Your task to perform on an android device: Add asus zenbook to the cart on newegg, then select checkout. Image 0: 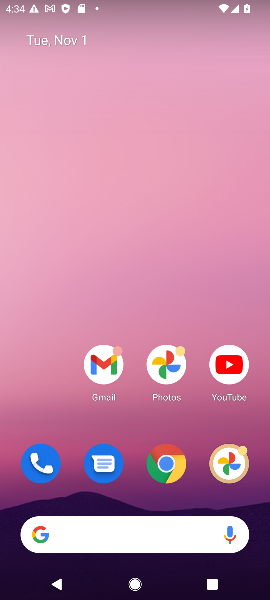
Step 0: click (165, 461)
Your task to perform on an android device: Add asus zenbook to the cart on newegg, then select checkout. Image 1: 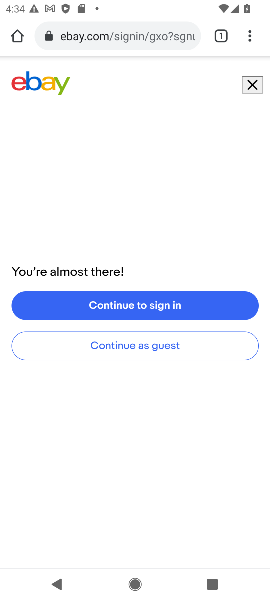
Step 1: click (110, 36)
Your task to perform on an android device: Add asus zenbook to the cart on newegg, then select checkout. Image 2: 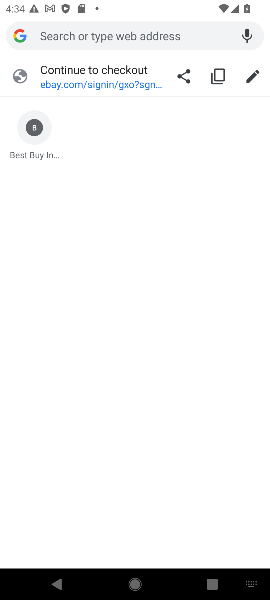
Step 2: type "newegg"
Your task to perform on an android device: Add asus zenbook to the cart on newegg, then select checkout. Image 3: 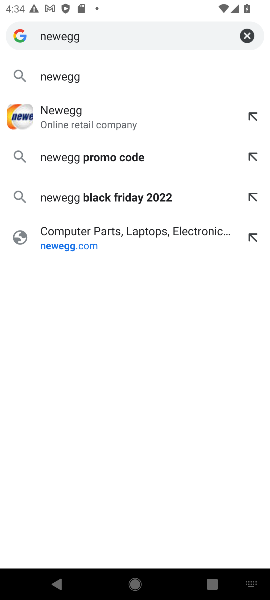
Step 3: click (107, 118)
Your task to perform on an android device: Add asus zenbook to the cart on newegg, then select checkout. Image 4: 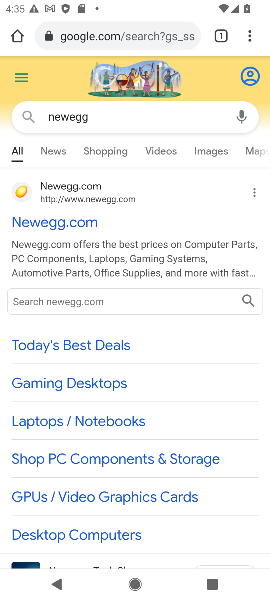
Step 4: click (43, 220)
Your task to perform on an android device: Add asus zenbook to the cart on newegg, then select checkout. Image 5: 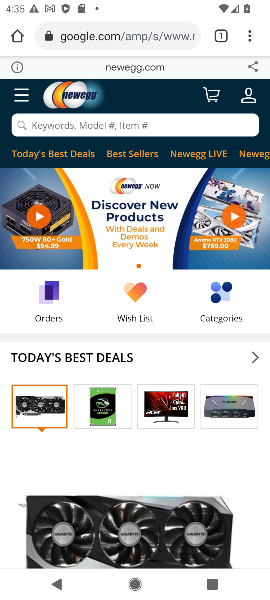
Step 5: click (93, 130)
Your task to perform on an android device: Add asus zenbook to the cart on newegg, then select checkout. Image 6: 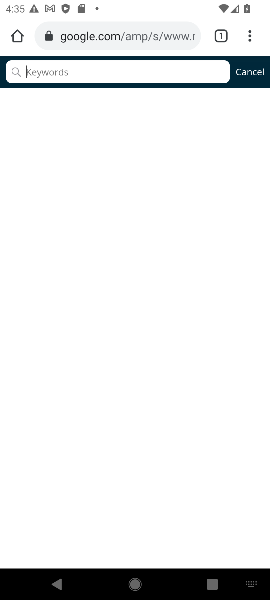
Step 6: type "asus zenbook"
Your task to perform on an android device: Add asus zenbook to the cart on newegg, then select checkout. Image 7: 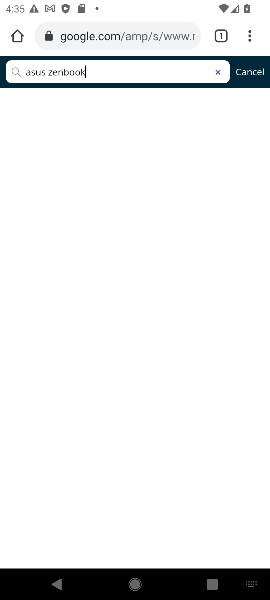
Step 7: press enter
Your task to perform on an android device: Add asus zenbook to the cart on newegg, then select checkout. Image 8: 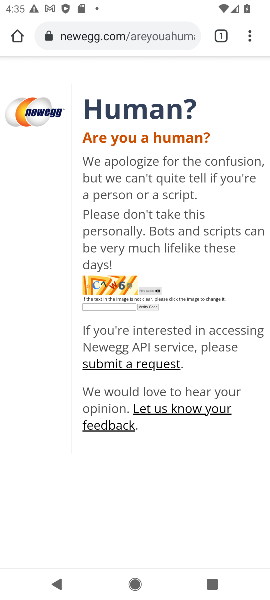
Step 8: press back button
Your task to perform on an android device: Add asus zenbook to the cart on newegg, then select checkout. Image 9: 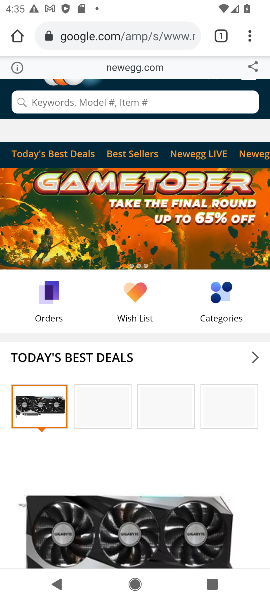
Step 9: click (97, 106)
Your task to perform on an android device: Add asus zenbook to the cart on newegg, then select checkout. Image 10: 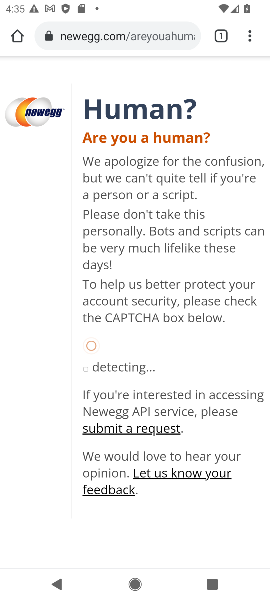
Step 10: press back button
Your task to perform on an android device: Add asus zenbook to the cart on newegg, then select checkout. Image 11: 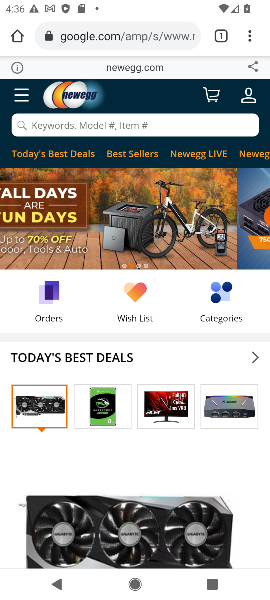
Step 11: click (115, 124)
Your task to perform on an android device: Add asus zenbook to the cart on newegg, then select checkout. Image 12: 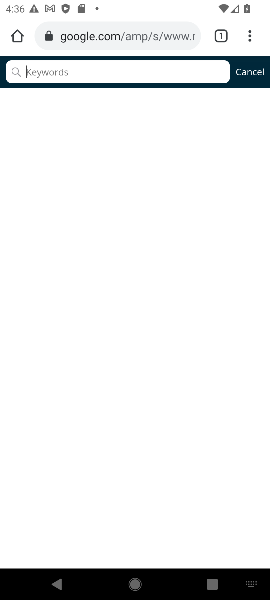
Step 12: type "asus zenbook"
Your task to perform on an android device: Add asus zenbook to the cart on newegg, then select checkout. Image 13: 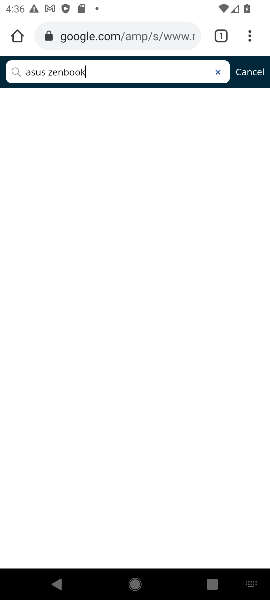
Step 13: press enter
Your task to perform on an android device: Add asus zenbook to the cart on newegg, then select checkout. Image 14: 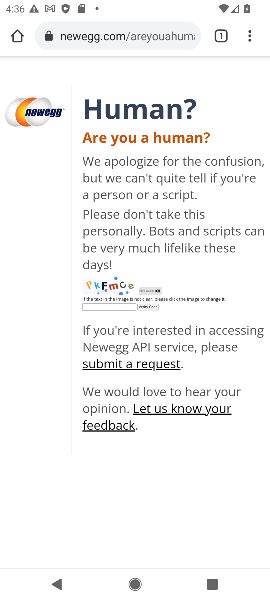
Step 14: click (108, 304)
Your task to perform on an android device: Add asus zenbook to the cart on newegg, then select checkout. Image 15: 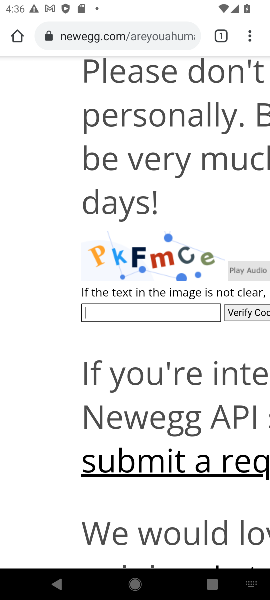
Step 15: type "PkFmCe"
Your task to perform on an android device: Add asus zenbook to the cart on newegg, then select checkout. Image 16: 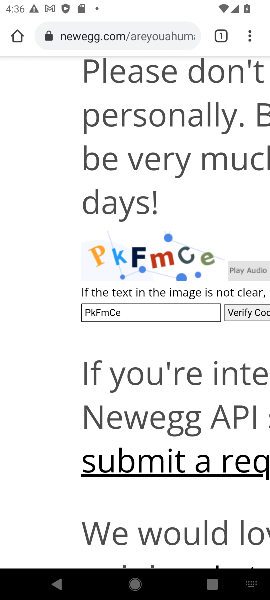
Step 16: click (248, 309)
Your task to perform on an android device: Add asus zenbook to the cart on newegg, then select checkout. Image 17: 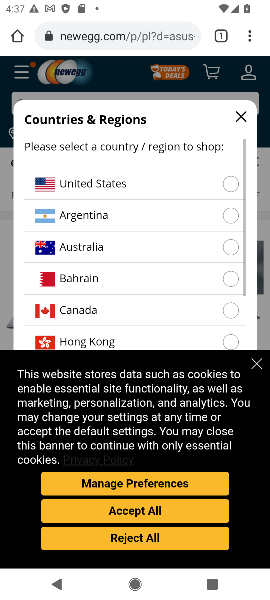
Step 17: click (255, 364)
Your task to perform on an android device: Add asus zenbook to the cart on newegg, then select checkout. Image 18: 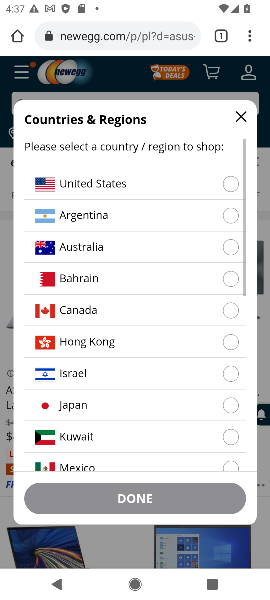
Step 18: click (241, 115)
Your task to perform on an android device: Add asus zenbook to the cart on newegg, then select checkout. Image 19: 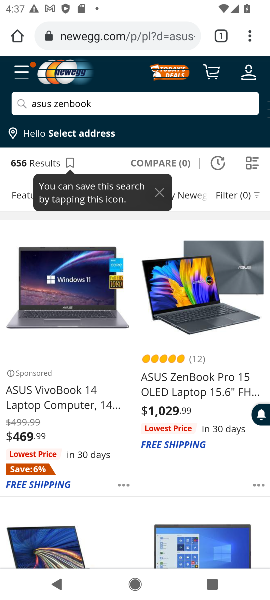
Step 19: click (212, 345)
Your task to perform on an android device: Add asus zenbook to the cart on newegg, then select checkout. Image 20: 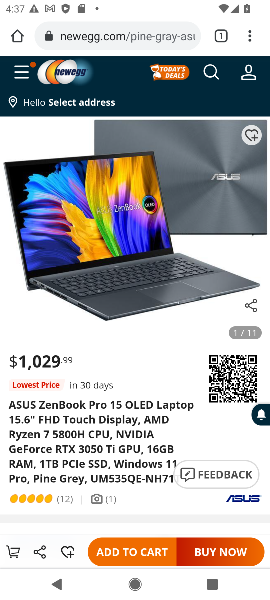
Step 20: click (134, 552)
Your task to perform on an android device: Add asus zenbook to the cart on newegg, then select checkout. Image 21: 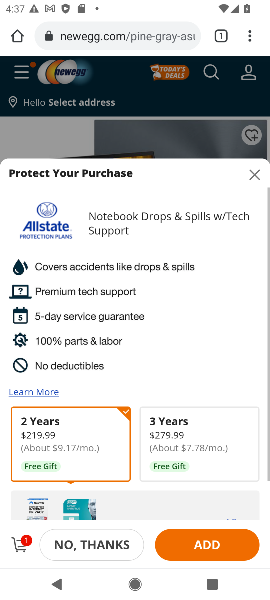
Step 21: click (21, 545)
Your task to perform on an android device: Add asus zenbook to the cart on newegg, then select checkout. Image 22: 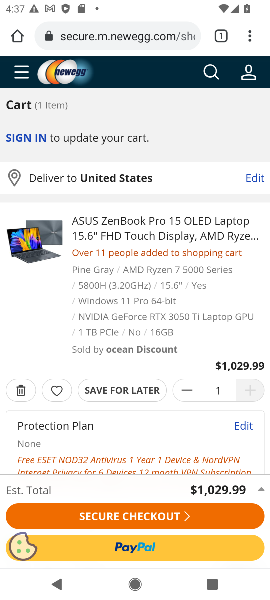
Step 22: click (131, 543)
Your task to perform on an android device: Add asus zenbook to the cart on newegg, then select checkout. Image 23: 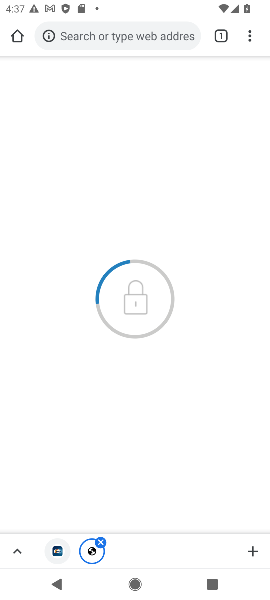
Step 23: press back button
Your task to perform on an android device: Add asus zenbook to the cart on newegg, then select checkout. Image 24: 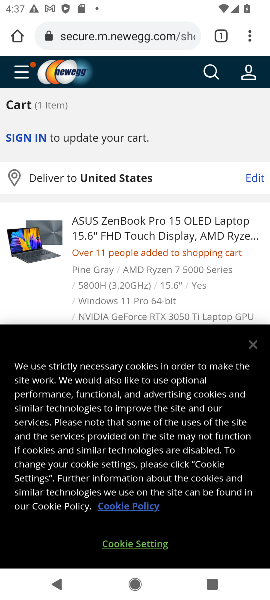
Step 24: click (254, 346)
Your task to perform on an android device: Add asus zenbook to the cart on newegg, then select checkout. Image 25: 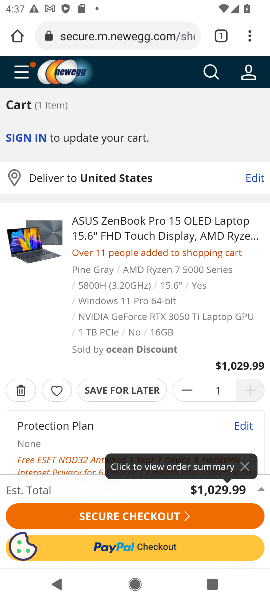
Step 25: click (134, 515)
Your task to perform on an android device: Add asus zenbook to the cart on newegg, then select checkout. Image 26: 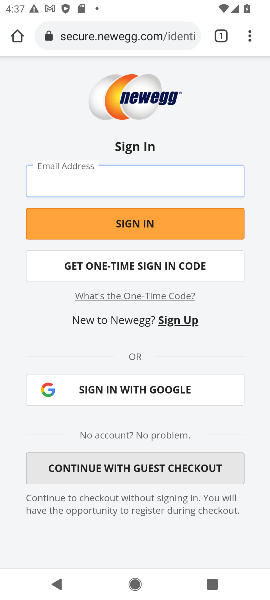
Step 26: task complete